Your task to perform on an android device: uninstall "Google Docs" Image 0: 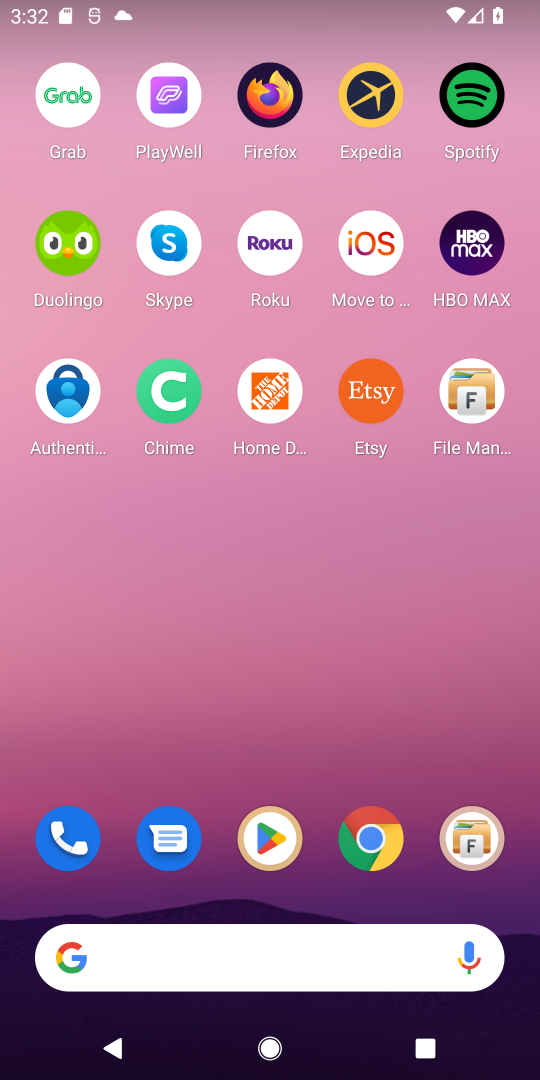
Step 0: click (254, 810)
Your task to perform on an android device: uninstall "Google Docs" Image 1: 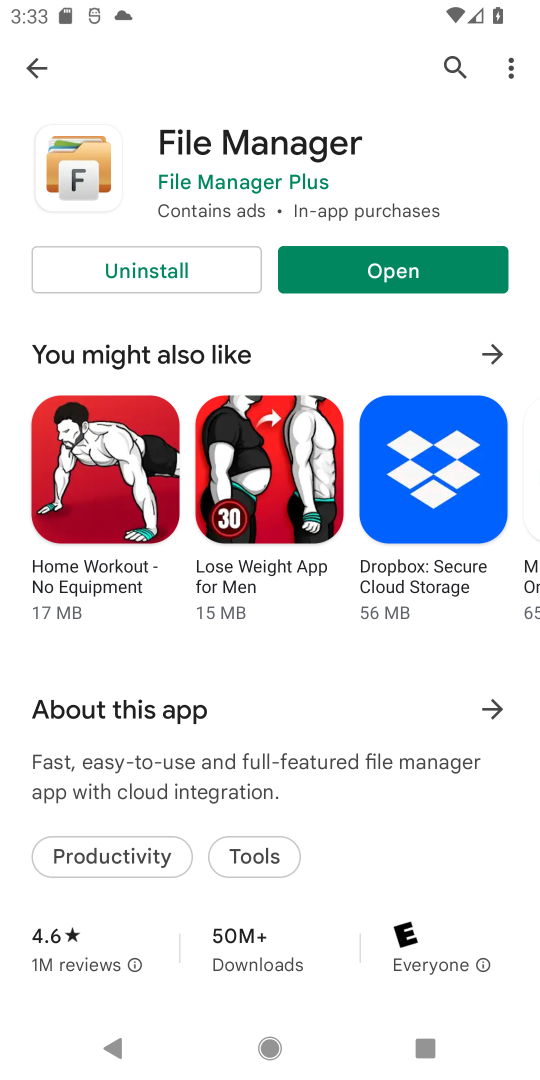
Step 1: click (27, 72)
Your task to perform on an android device: uninstall "Google Docs" Image 2: 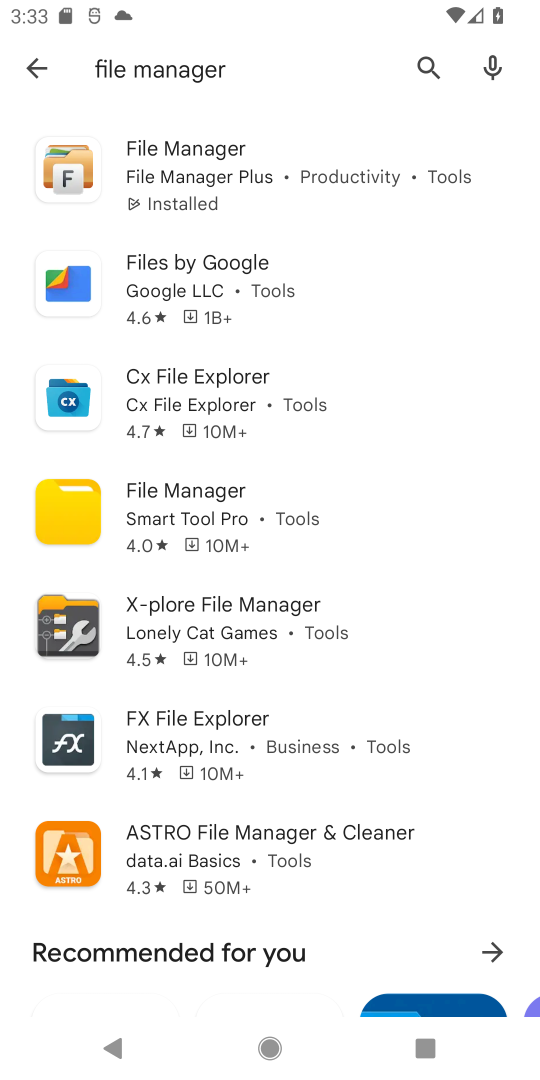
Step 2: click (427, 64)
Your task to perform on an android device: uninstall "Google Docs" Image 3: 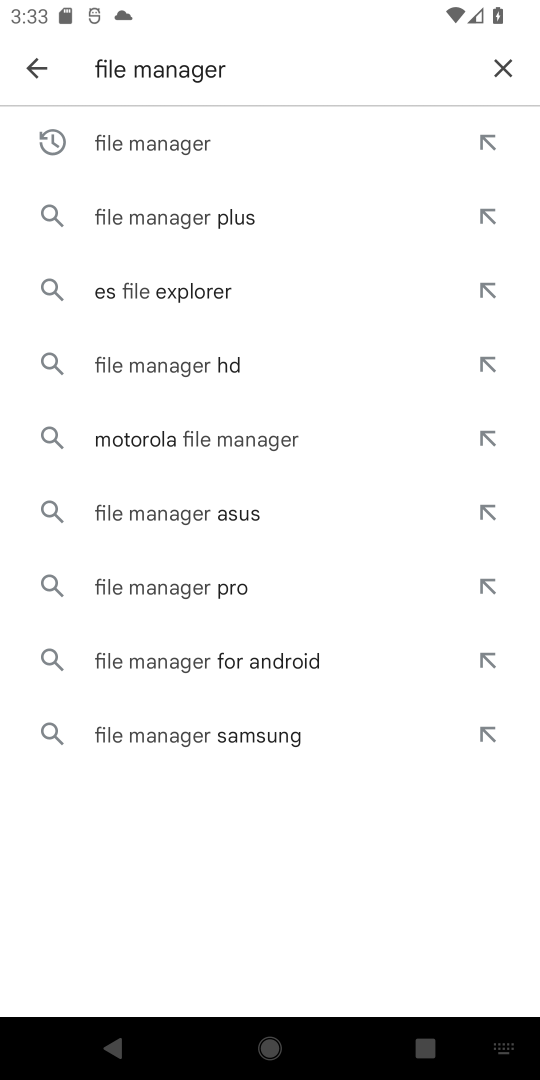
Step 3: click (492, 66)
Your task to perform on an android device: uninstall "Google Docs" Image 4: 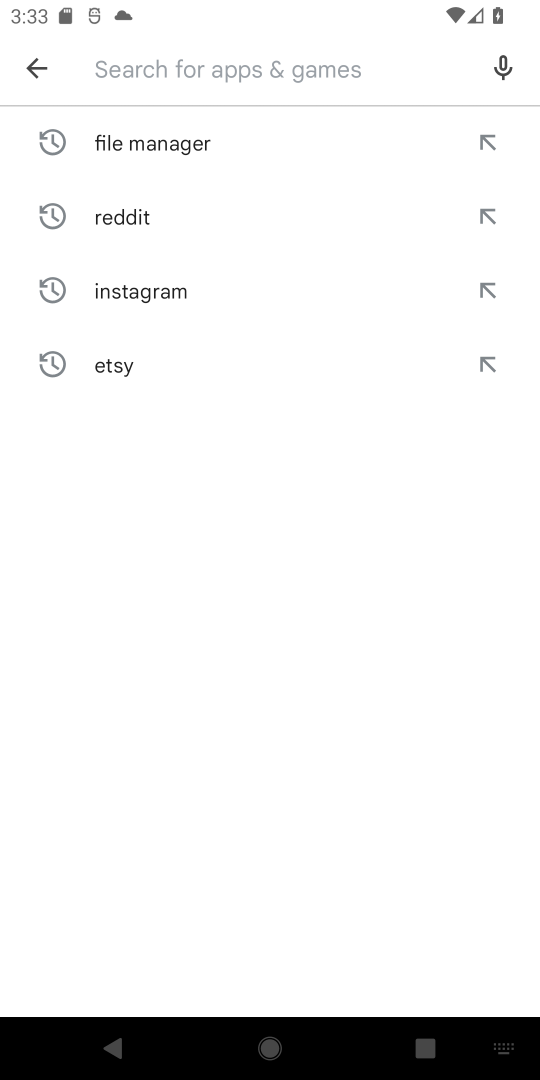
Step 4: type "Google Docs"
Your task to perform on an android device: uninstall "Google Docs" Image 5: 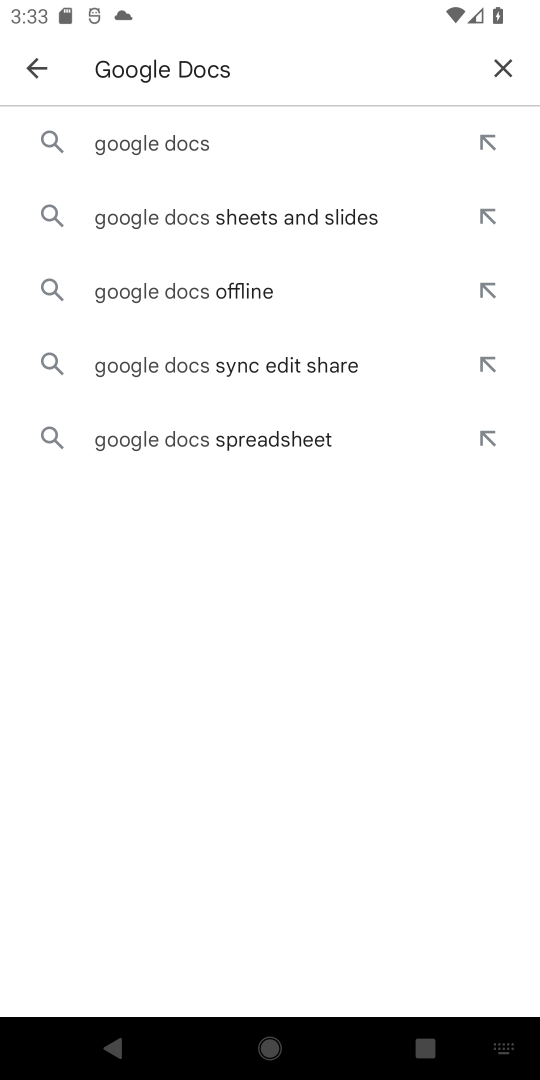
Step 5: click (298, 158)
Your task to perform on an android device: uninstall "Google Docs" Image 6: 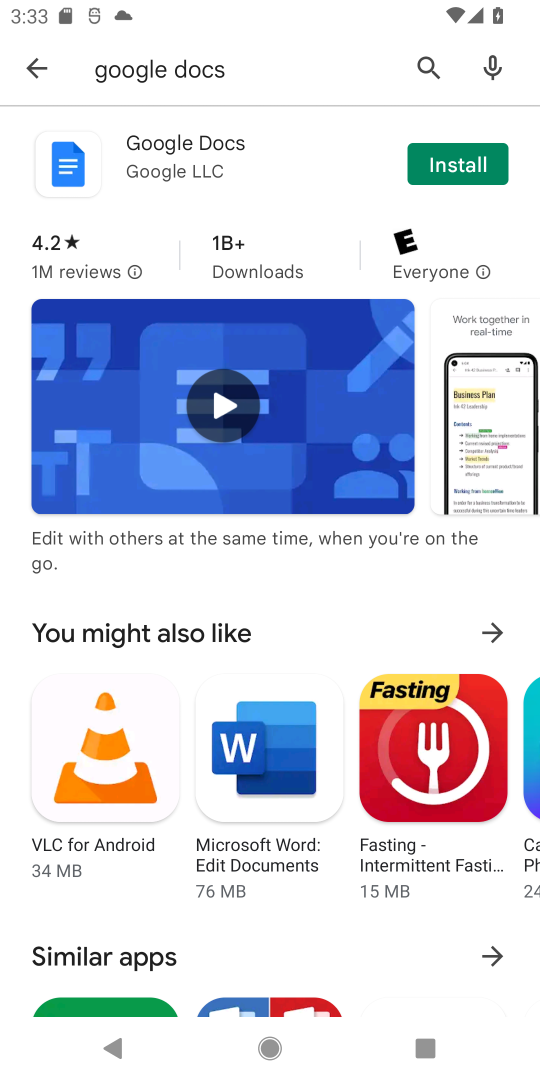
Step 6: task complete